Your task to perform on an android device: turn off sleep mode Image 0: 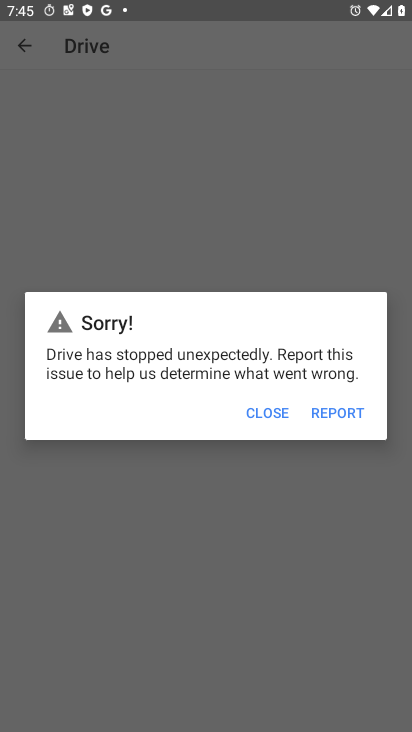
Step 0: press home button
Your task to perform on an android device: turn off sleep mode Image 1: 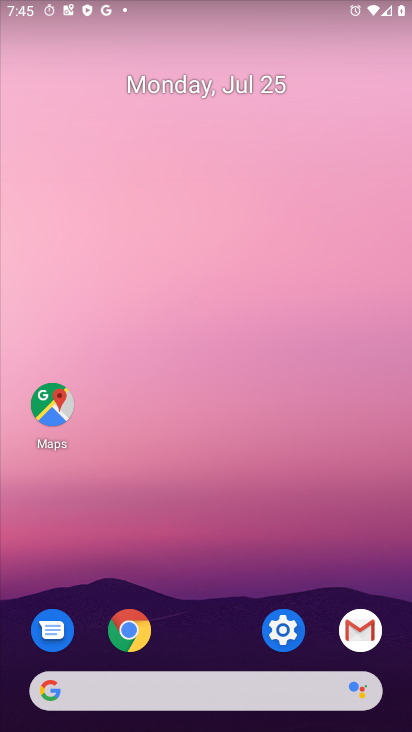
Step 1: click (287, 621)
Your task to perform on an android device: turn off sleep mode Image 2: 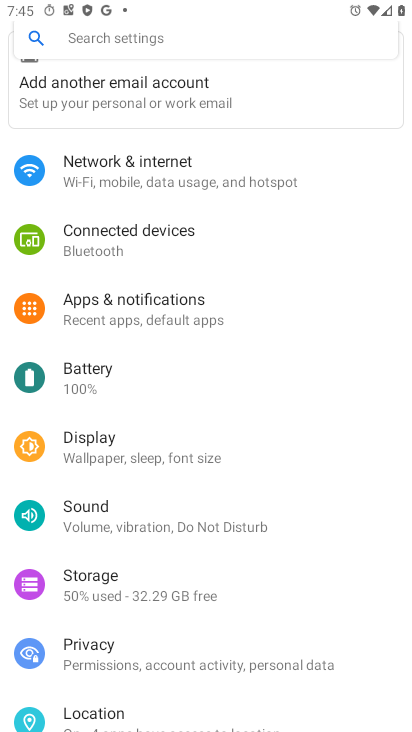
Step 2: click (109, 48)
Your task to perform on an android device: turn off sleep mode Image 3: 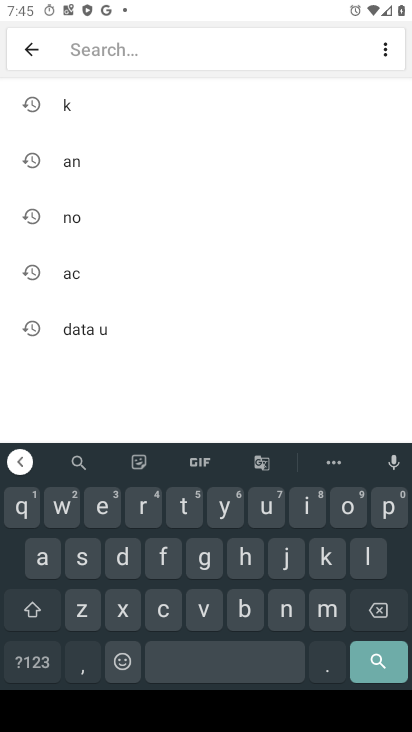
Step 3: click (78, 566)
Your task to perform on an android device: turn off sleep mode Image 4: 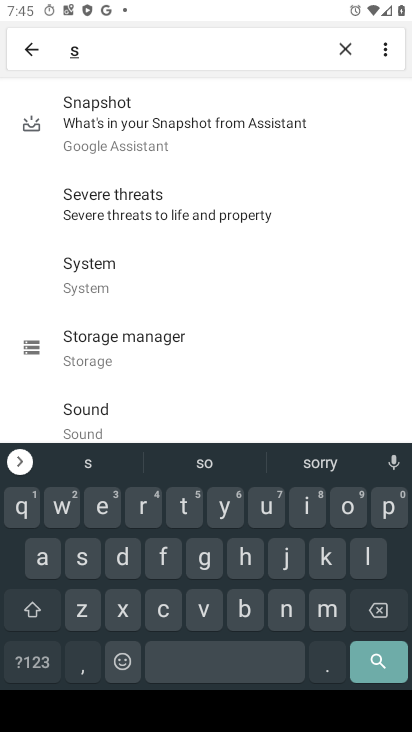
Step 4: click (362, 557)
Your task to perform on an android device: turn off sleep mode Image 5: 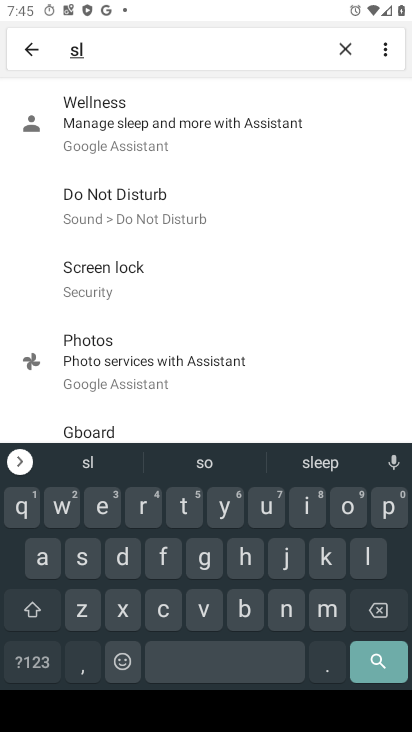
Step 5: click (147, 115)
Your task to perform on an android device: turn off sleep mode Image 6: 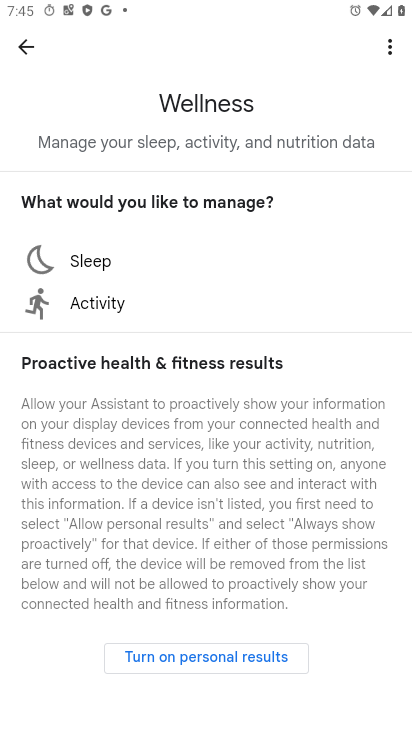
Step 6: click (78, 256)
Your task to perform on an android device: turn off sleep mode Image 7: 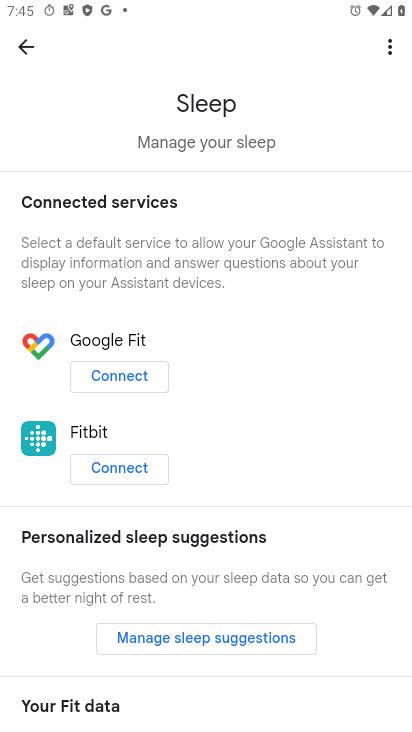
Step 7: task complete